Your task to perform on an android device: Open display settings Image 0: 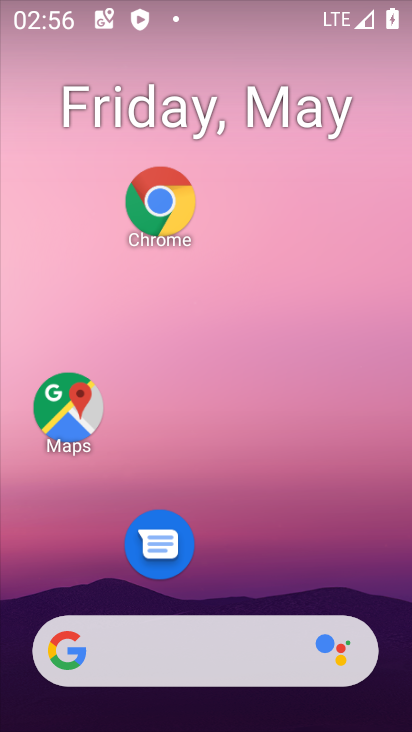
Step 0: drag from (265, 614) to (242, 267)
Your task to perform on an android device: Open display settings Image 1: 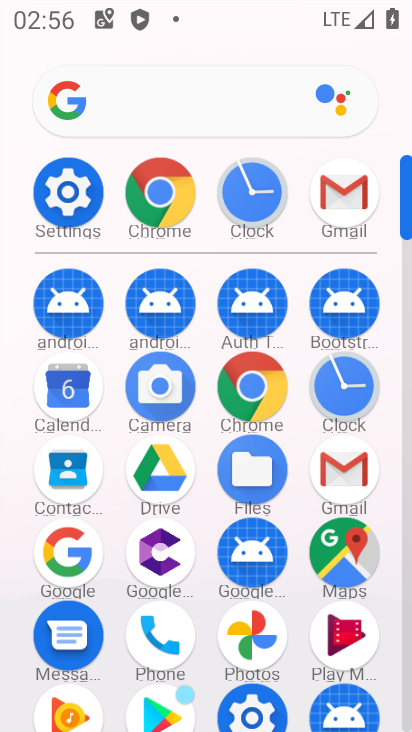
Step 1: click (72, 224)
Your task to perform on an android device: Open display settings Image 2: 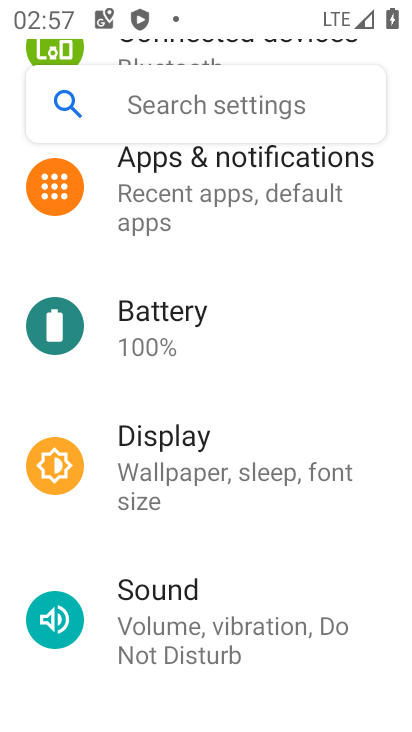
Step 2: click (186, 480)
Your task to perform on an android device: Open display settings Image 3: 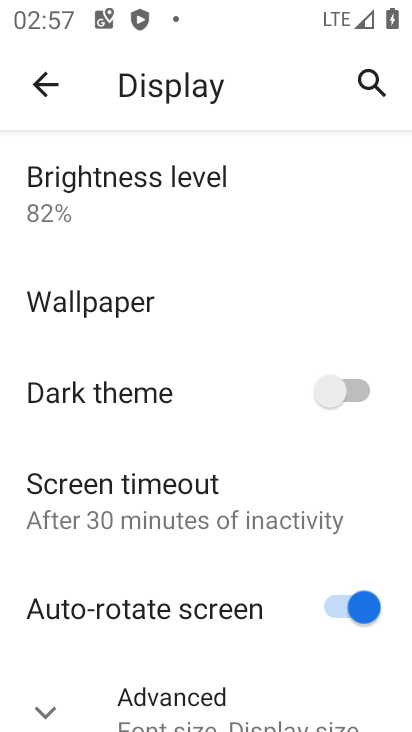
Step 3: task complete